Your task to perform on an android device: Go to Maps Image 0: 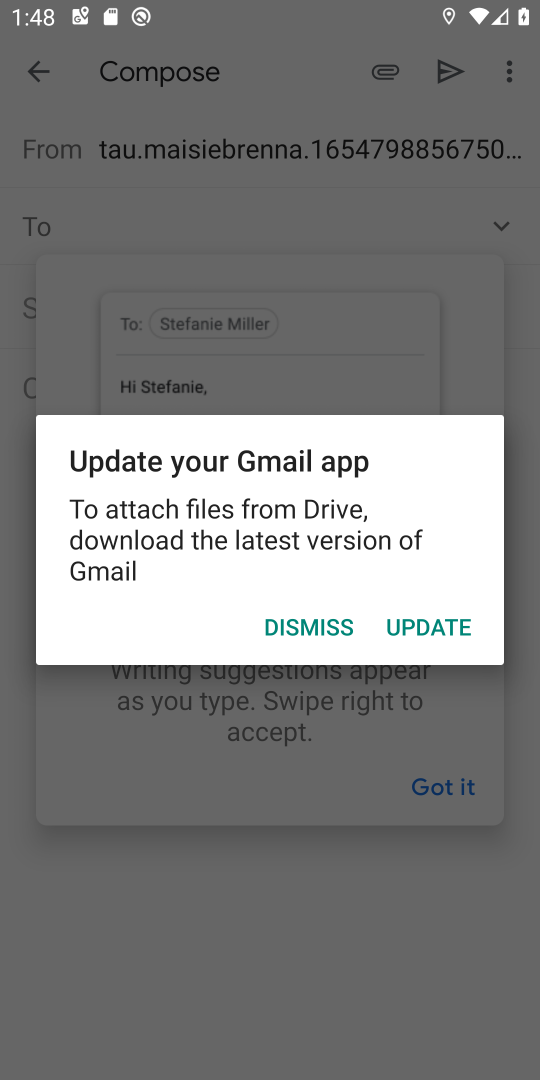
Step 0: press home button
Your task to perform on an android device: Go to Maps Image 1: 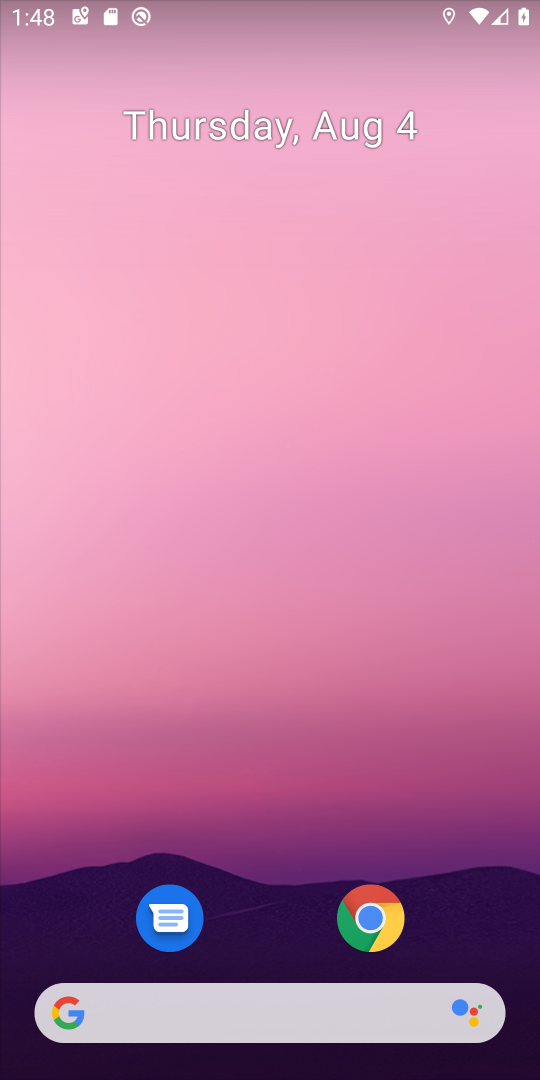
Step 1: drag from (275, 934) to (256, 456)
Your task to perform on an android device: Go to Maps Image 2: 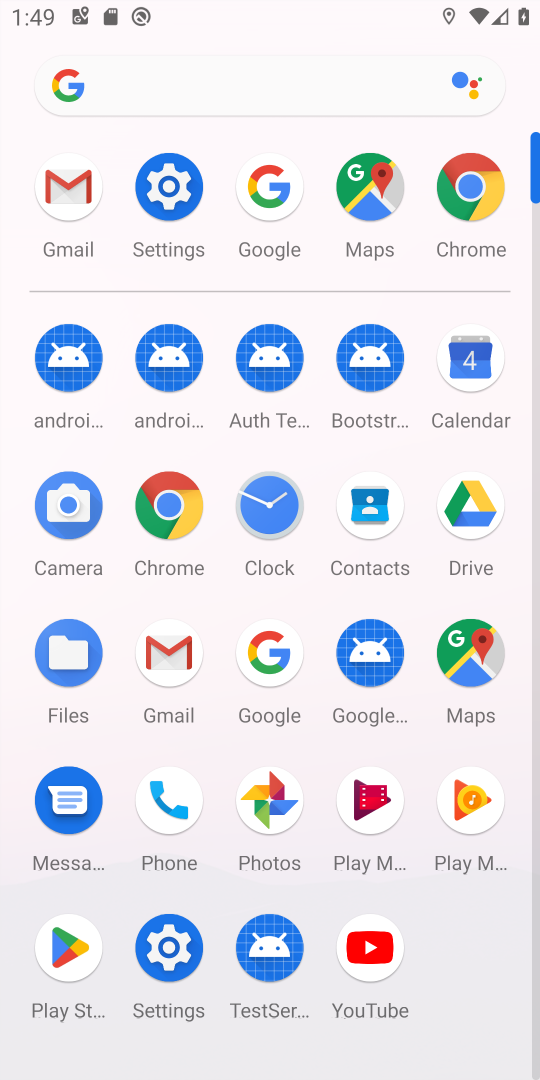
Step 2: click (350, 196)
Your task to perform on an android device: Go to Maps Image 3: 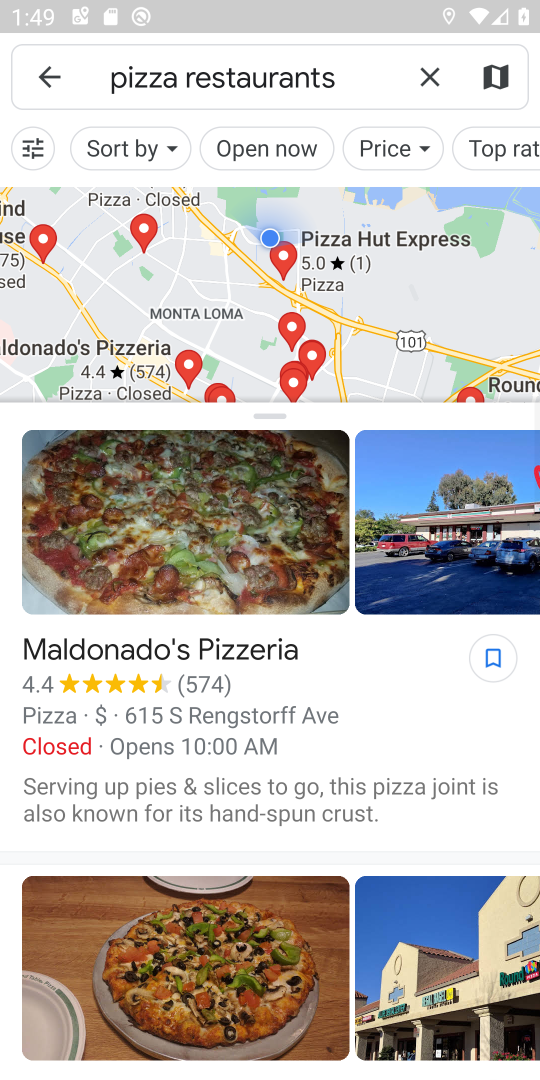
Step 3: task complete